Your task to perform on an android device: Go to accessibility settings Image 0: 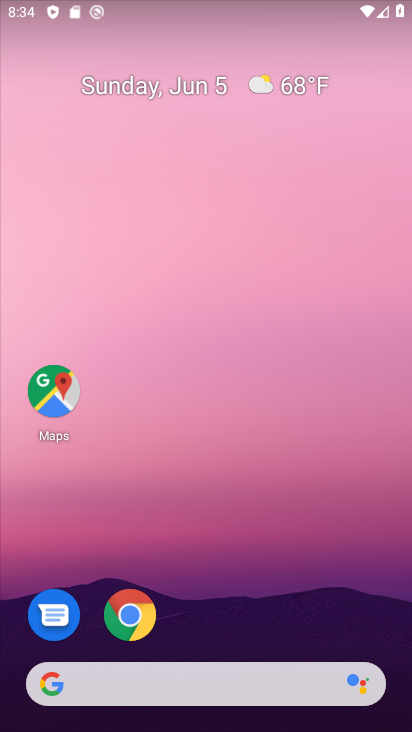
Step 0: drag from (121, 730) to (189, 181)
Your task to perform on an android device: Go to accessibility settings Image 1: 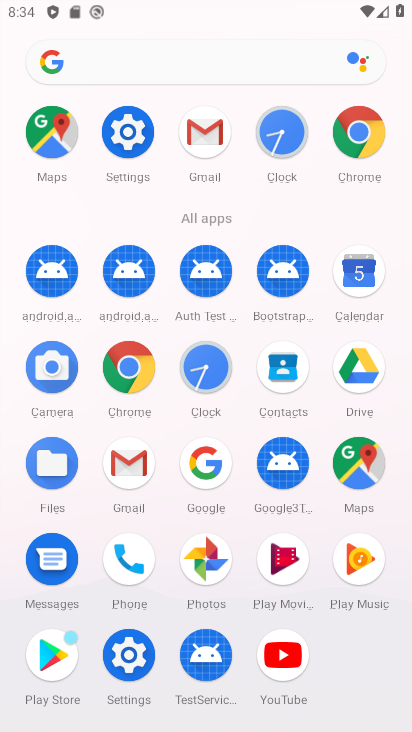
Step 1: click (134, 138)
Your task to perform on an android device: Go to accessibility settings Image 2: 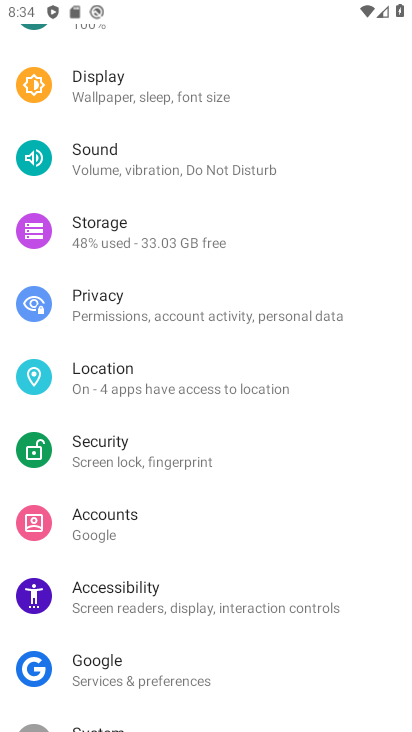
Step 2: click (148, 594)
Your task to perform on an android device: Go to accessibility settings Image 3: 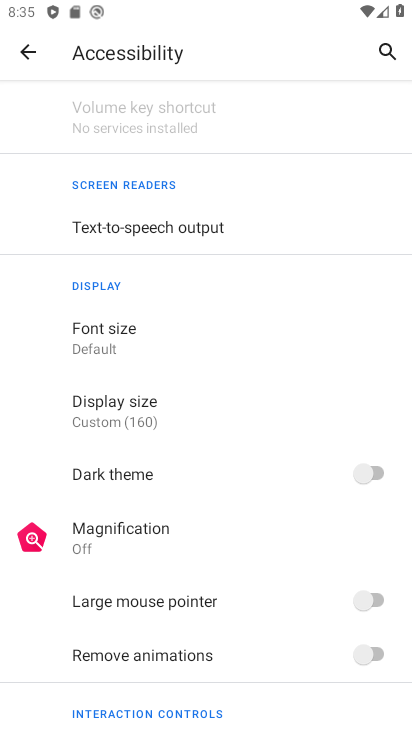
Step 3: task complete